Your task to perform on an android device: What's the weather going to be tomorrow? Image 0: 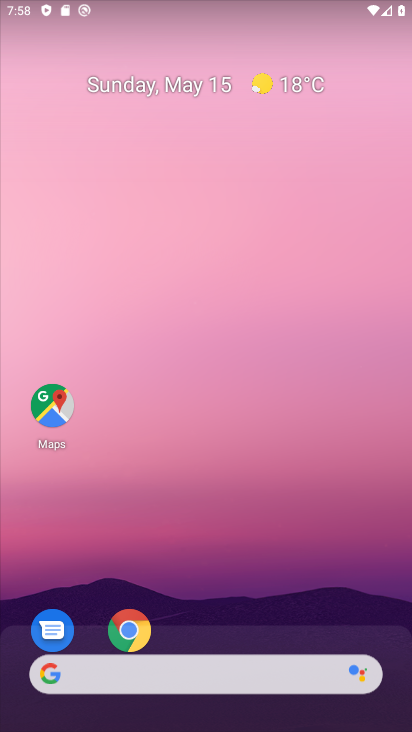
Step 0: click (300, 617)
Your task to perform on an android device: What's the weather going to be tomorrow? Image 1: 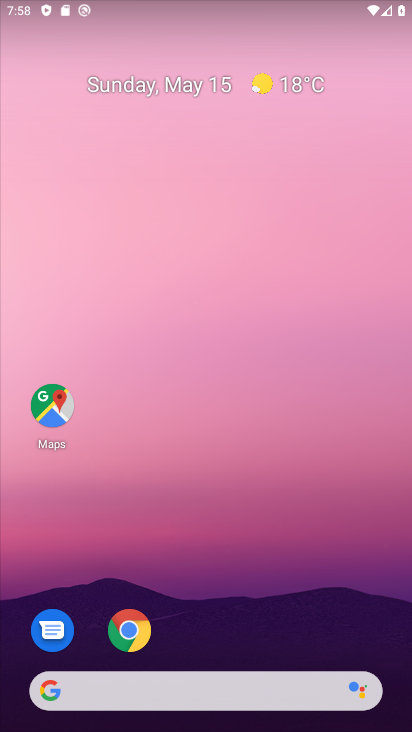
Step 1: click (278, 84)
Your task to perform on an android device: What's the weather going to be tomorrow? Image 2: 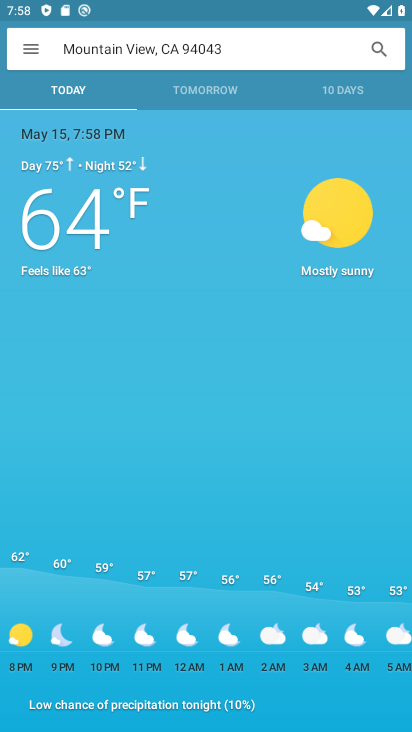
Step 2: click (184, 83)
Your task to perform on an android device: What's the weather going to be tomorrow? Image 3: 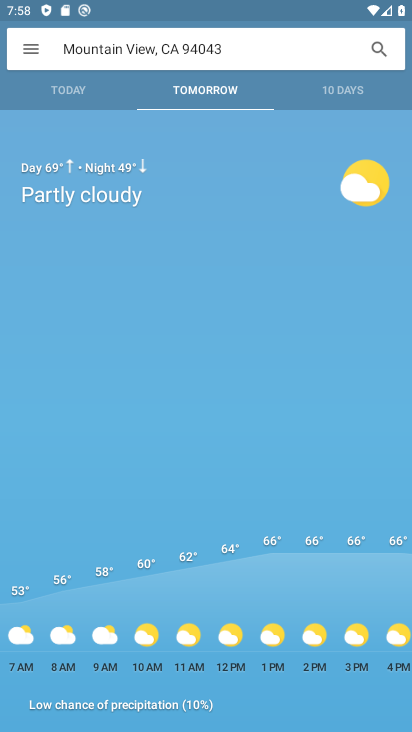
Step 3: task complete